Your task to perform on an android device: turn off location history Image 0: 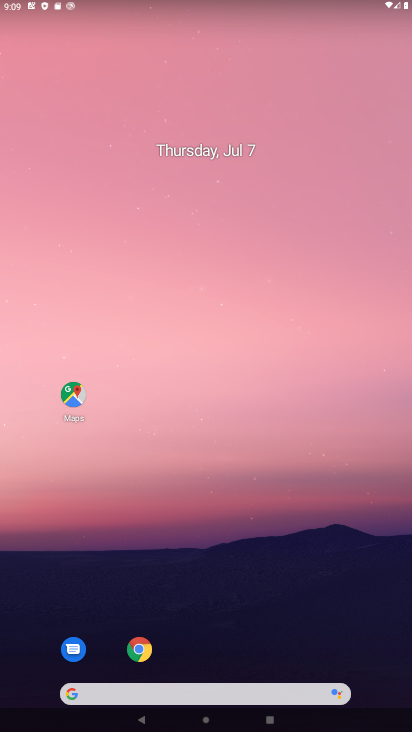
Step 0: drag from (244, 702) to (234, 132)
Your task to perform on an android device: turn off location history Image 1: 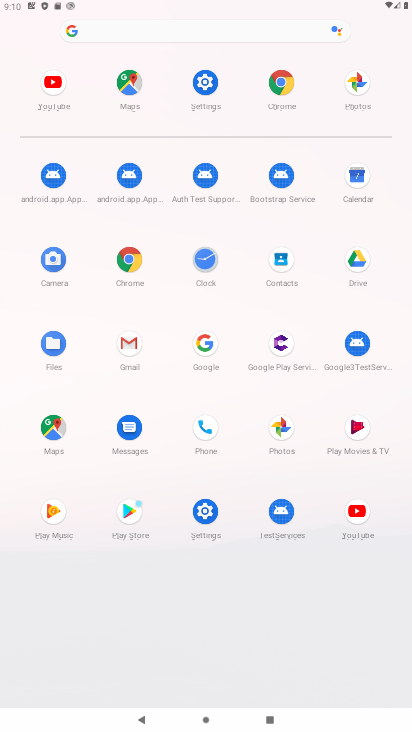
Step 1: click (203, 84)
Your task to perform on an android device: turn off location history Image 2: 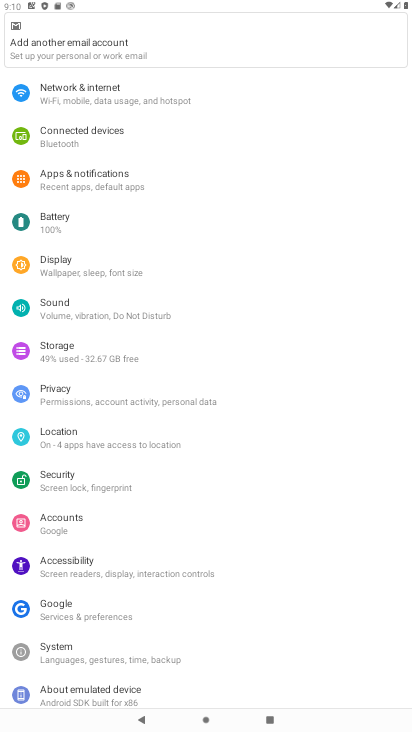
Step 2: click (66, 433)
Your task to perform on an android device: turn off location history Image 3: 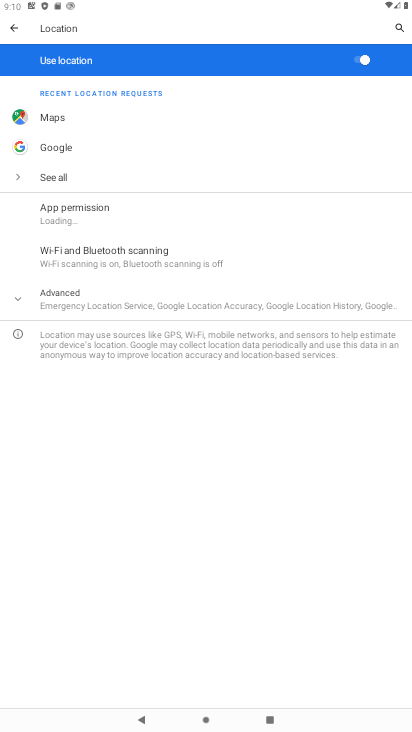
Step 3: click (97, 302)
Your task to perform on an android device: turn off location history Image 4: 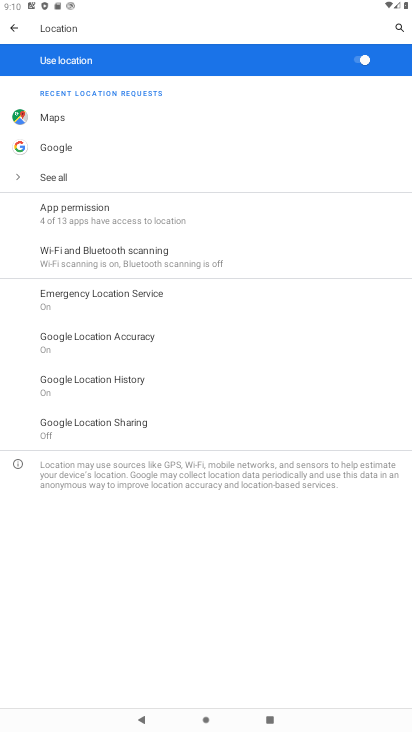
Step 4: click (91, 378)
Your task to perform on an android device: turn off location history Image 5: 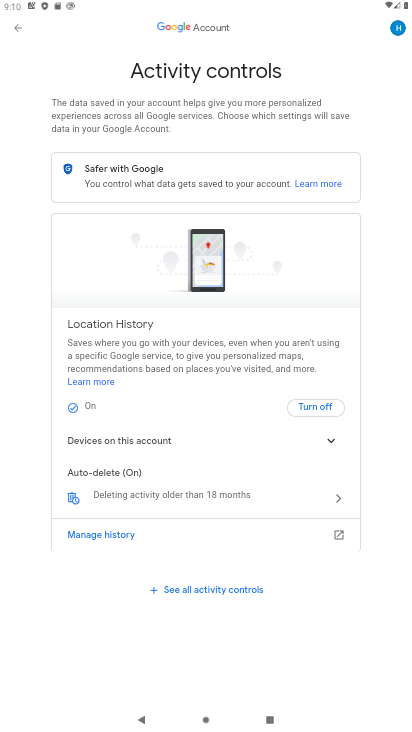
Step 5: click (313, 404)
Your task to perform on an android device: turn off location history Image 6: 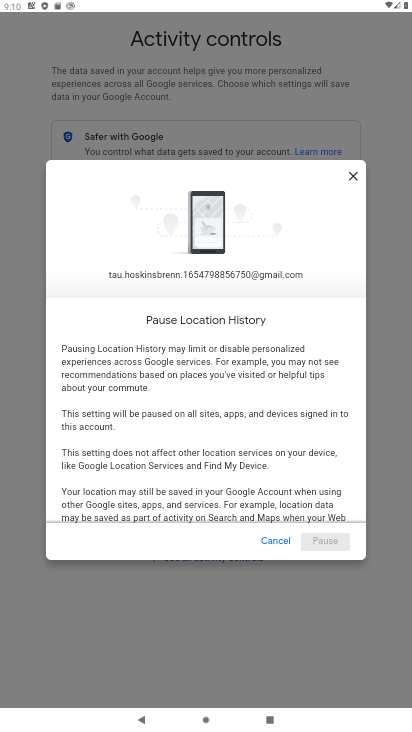
Step 6: drag from (195, 476) to (189, 430)
Your task to perform on an android device: turn off location history Image 7: 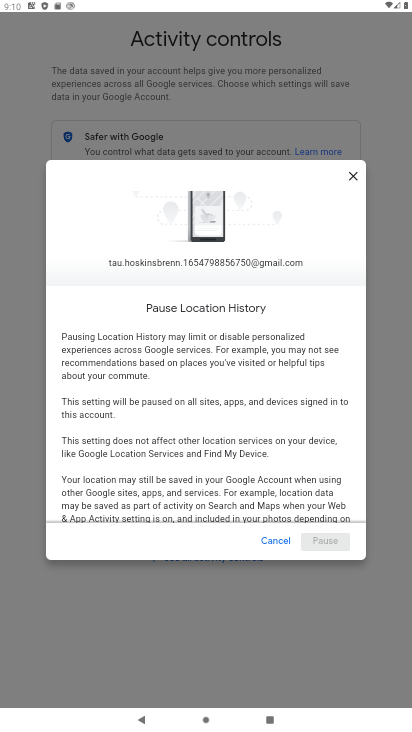
Step 7: drag from (184, 338) to (184, 264)
Your task to perform on an android device: turn off location history Image 8: 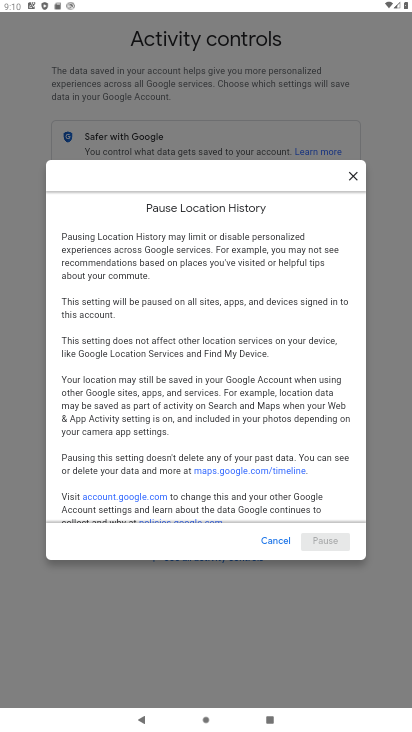
Step 8: drag from (254, 491) to (247, 458)
Your task to perform on an android device: turn off location history Image 9: 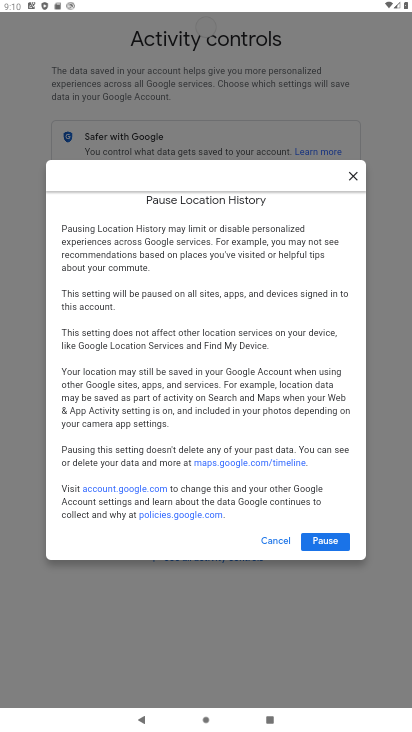
Step 9: click (240, 233)
Your task to perform on an android device: turn off location history Image 10: 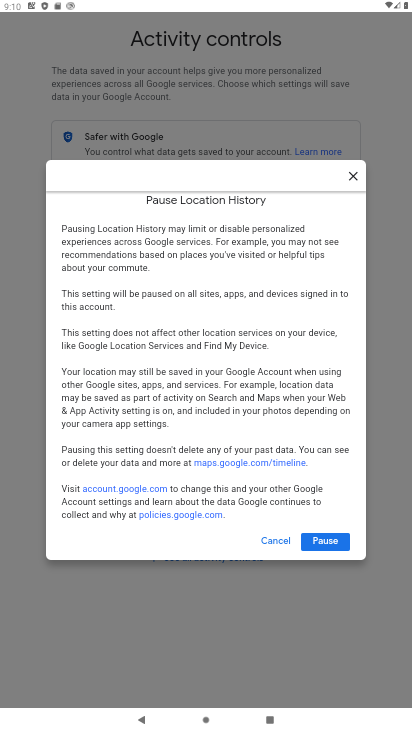
Step 10: click (322, 538)
Your task to perform on an android device: turn off location history Image 11: 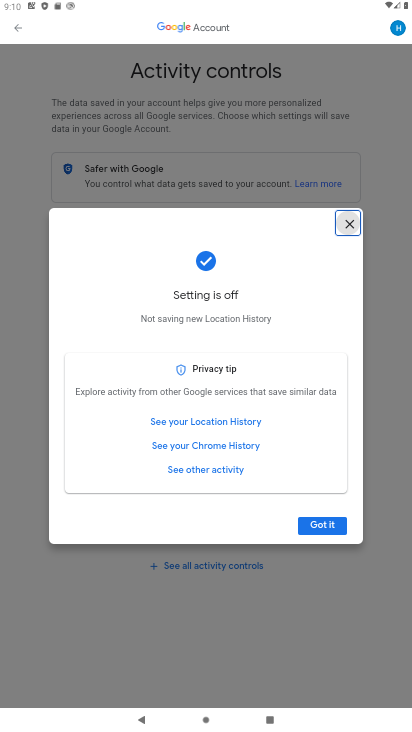
Step 11: click (320, 524)
Your task to perform on an android device: turn off location history Image 12: 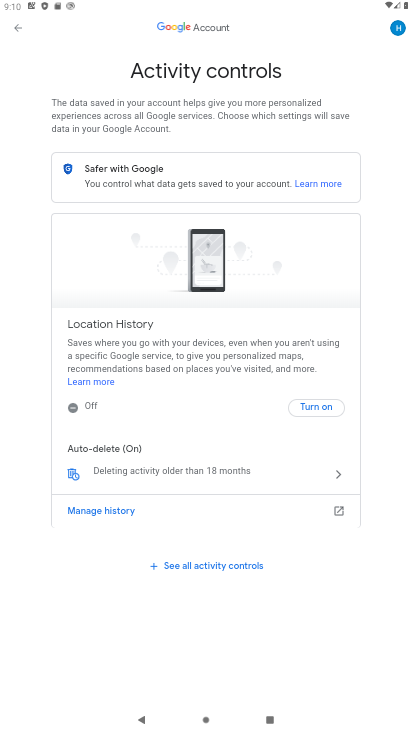
Step 12: task complete